Your task to perform on an android device: Open Google Maps Image 0: 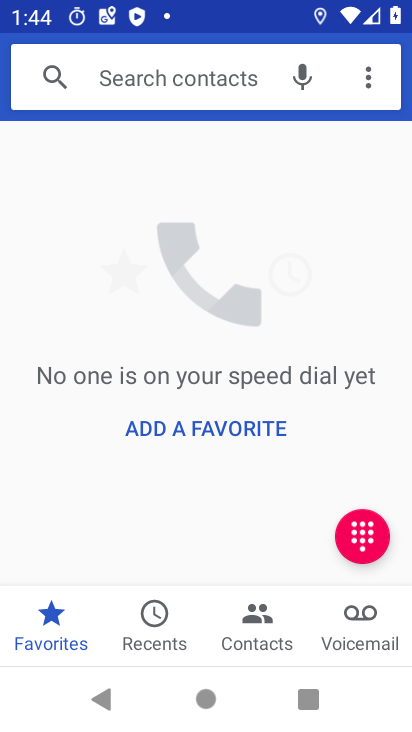
Step 0: press home button
Your task to perform on an android device: Open Google Maps Image 1: 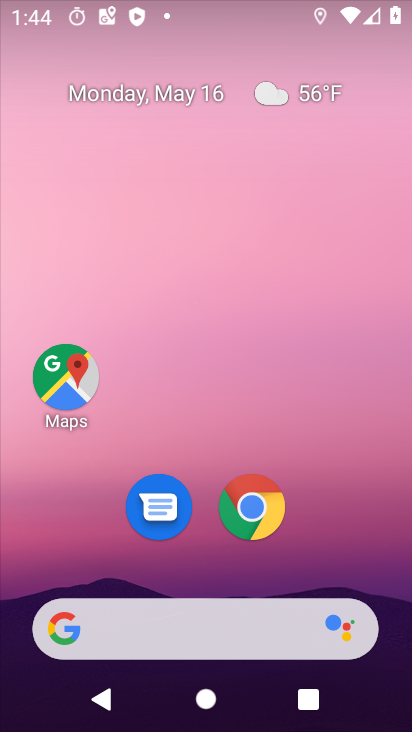
Step 1: drag from (212, 560) to (222, 91)
Your task to perform on an android device: Open Google Maps Image 2: 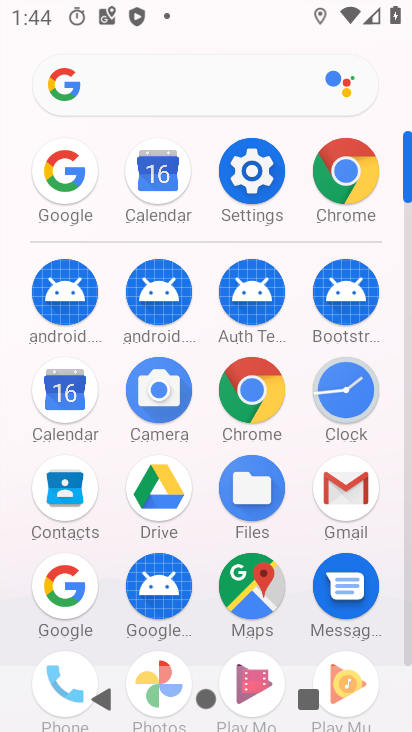
Step 2: click (259, 590)
Your task to perform on an android device: Open Google Maps Image 3: 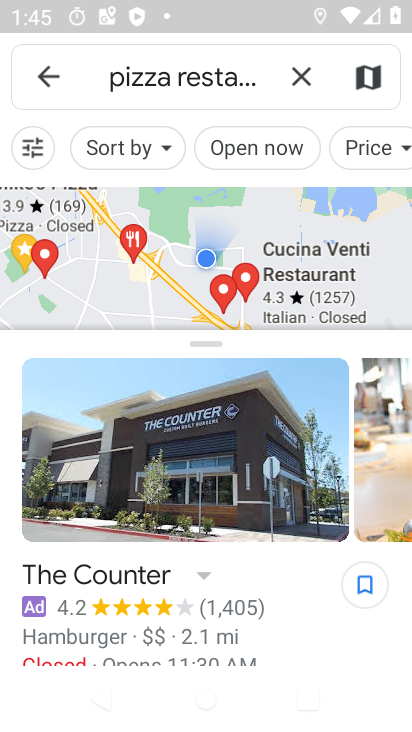
Step 3: task complete